Your task to perform on an android device: Go to settings Image 0: 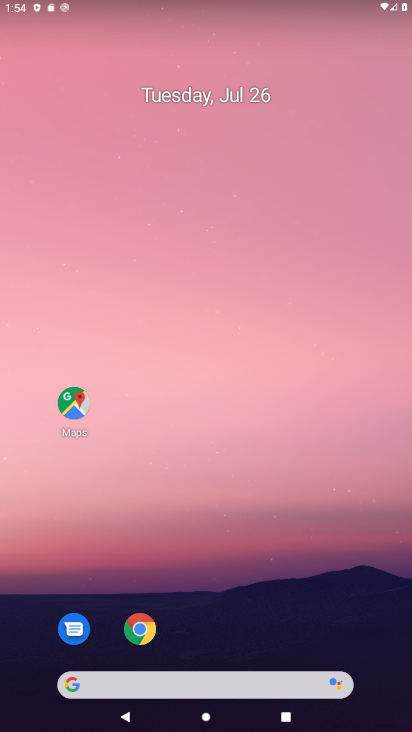
Step 0: drag from (209, 624) to (279, 86)
Your task to perform on an android device: Go to settings Image 1: 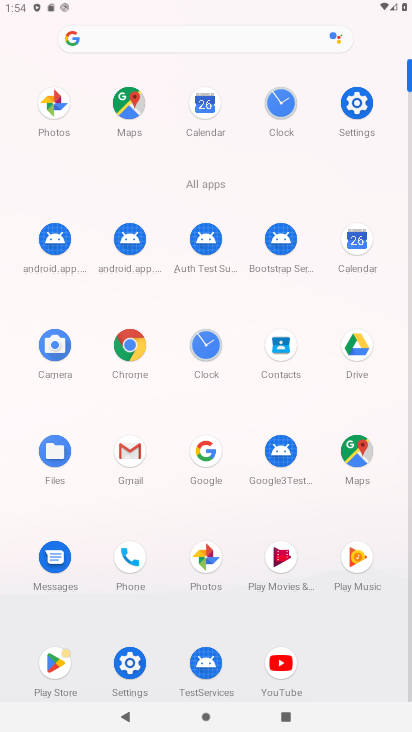
Step 1: click (345, 130)
Your task to perform on an android device: Go to settings Image 2: 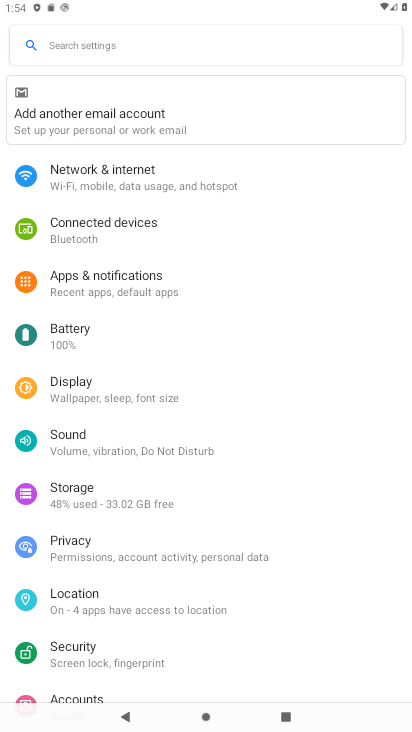
Step 2: task complete